Your task to perform on an android device: open wifi settings Image 0: 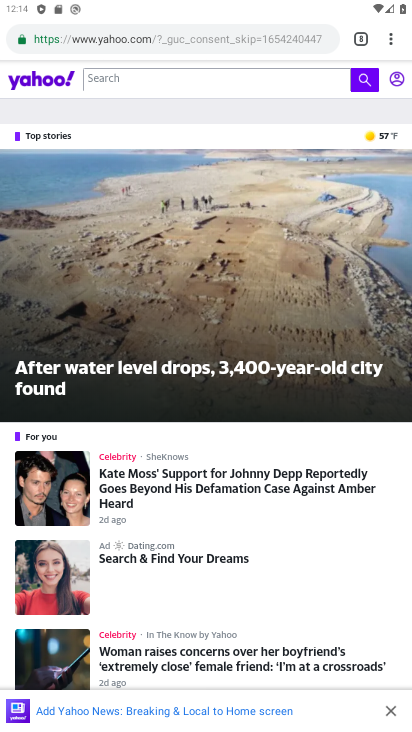
Step 0: press home button
Your task to perform on an android device: open wifi settings Image 1: 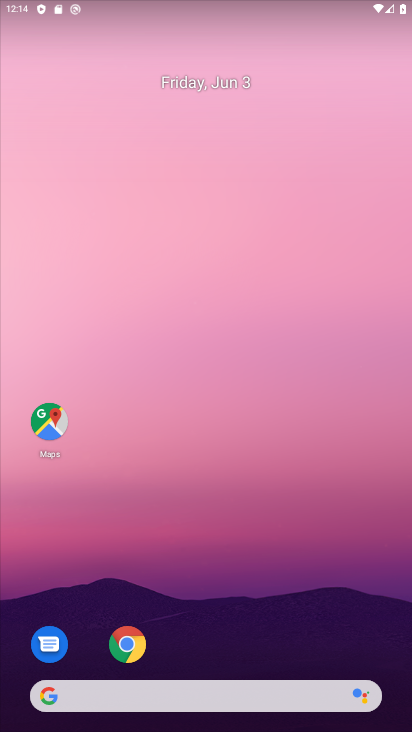
Step 1: drag from (223, 718) to (235, 23)
Your task to perform on an android device: open wifi settings Image 2: 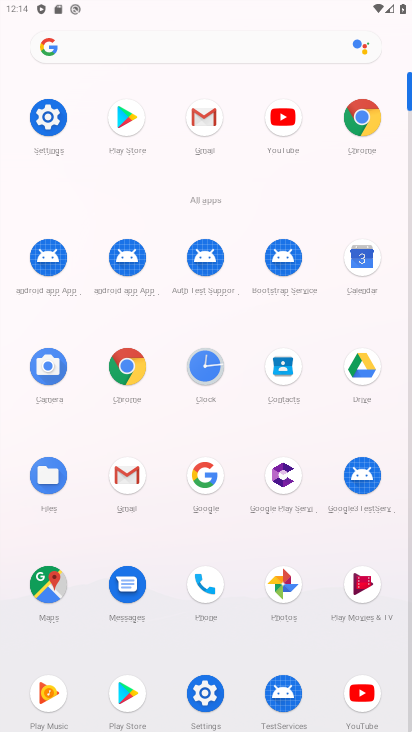
Step 2: click (48, 115)
Your task to perform on an android device: open wifi settings Image 3: 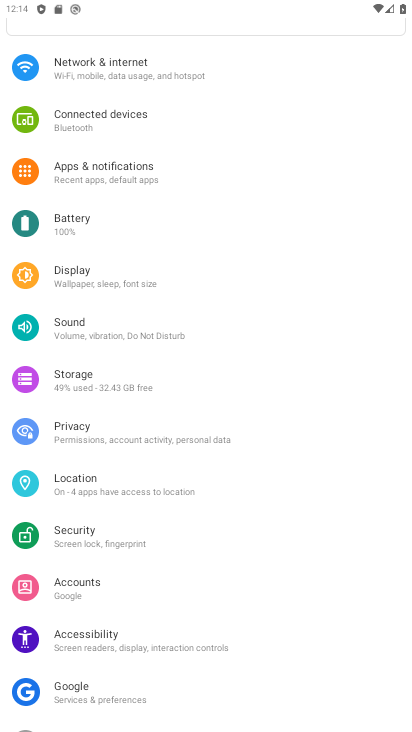
Step 3: drag from (193, 133) to (213, 570)
Your task to perform on an android device: open wifi settings Image 4: 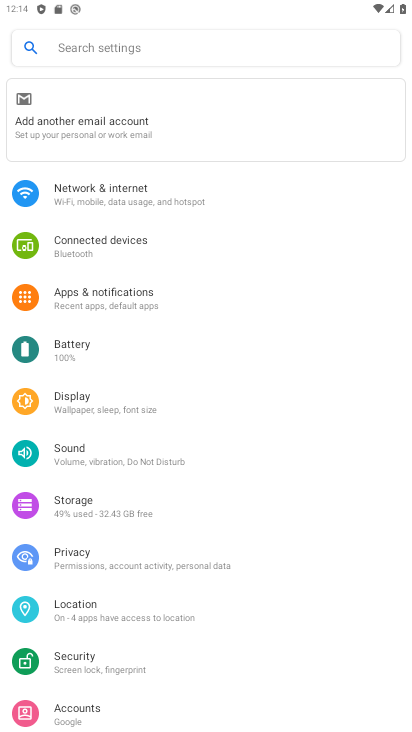
Step 4: click (97, 199)
Your task to perform on an android device: open wifi settings Image 5: 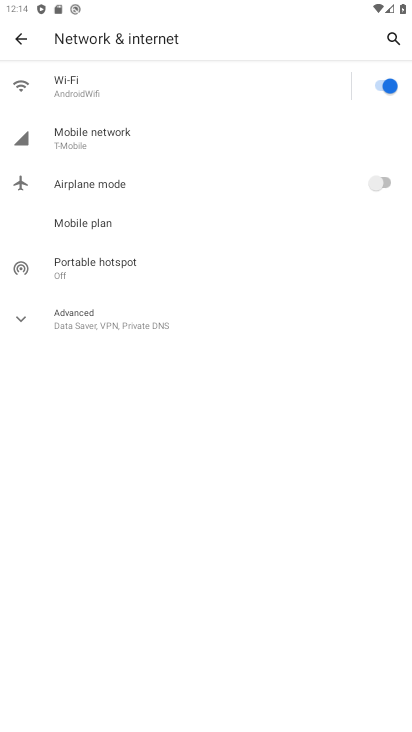
Step 5: click (76, 78)
Your task to perform on an android device: open wifi settings Image 6: 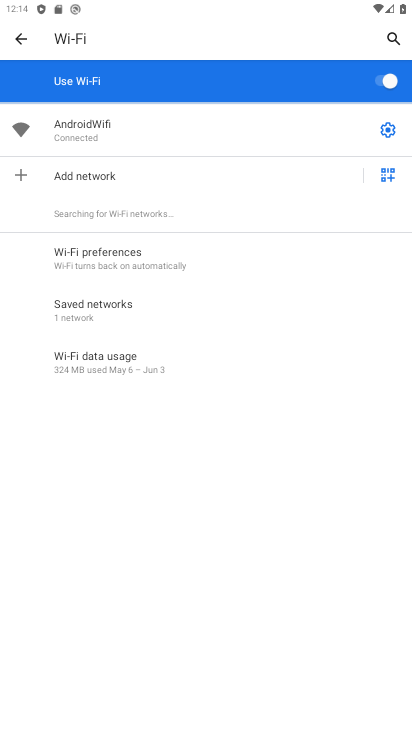
Step 6: task complete